Your task to perform on an android device: Go to ESPN.com Image 0: 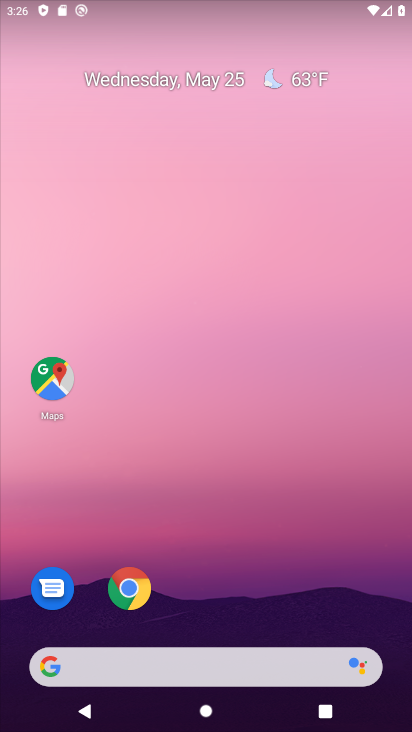
Step 0: click (143, 598)
Your task to perform on an android device: Go to ESPN.com Image 1: 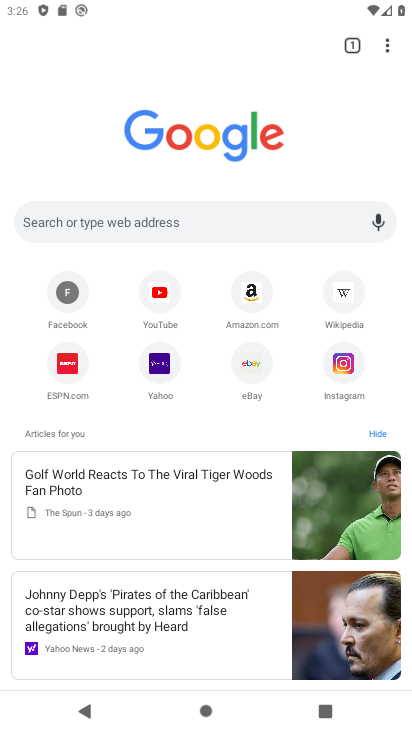
Step 1: click (70, 361)
Your task to perform on an android device: Go to ESPN.com Image 2: 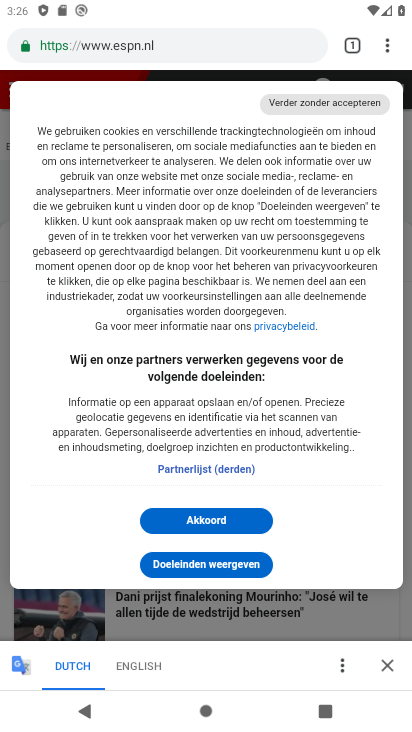
Step 2: task complete